Your task to perform on an android device: change the clock style Image 0: 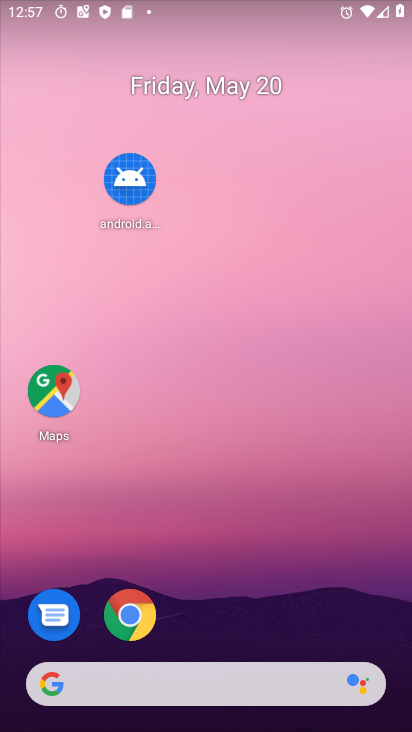
Step 0: drag from (249, 600) to (267, 166)
Your task to perform on an android device: change the clock style Image 1: 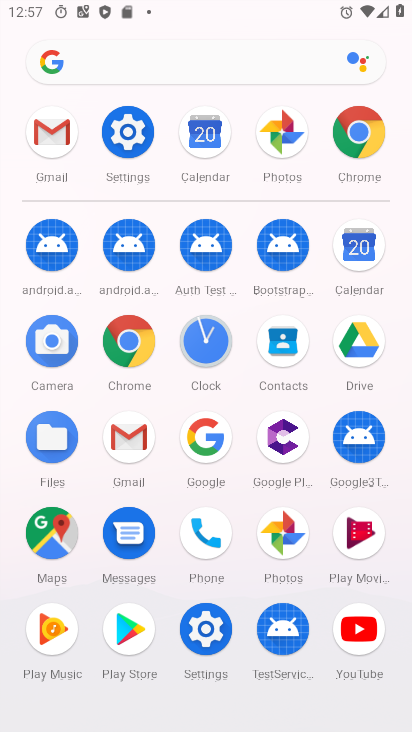
Step 1: click (216, 335)
Your task to perform on an android device: change the clock style Image 2: 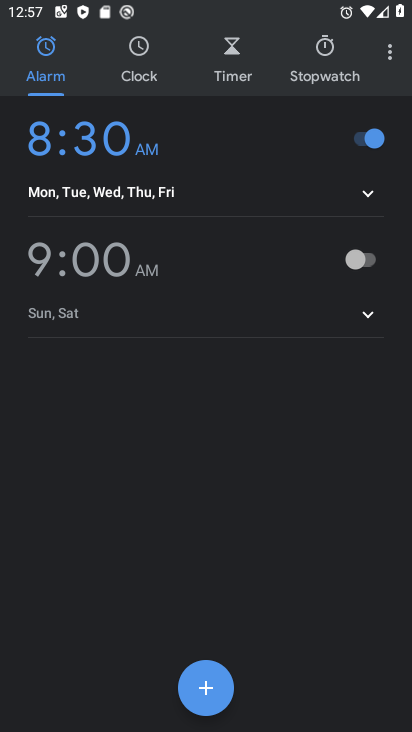
Step 2: click (396, 54)
Your task to perform on an android device: change the clock style Image 3: 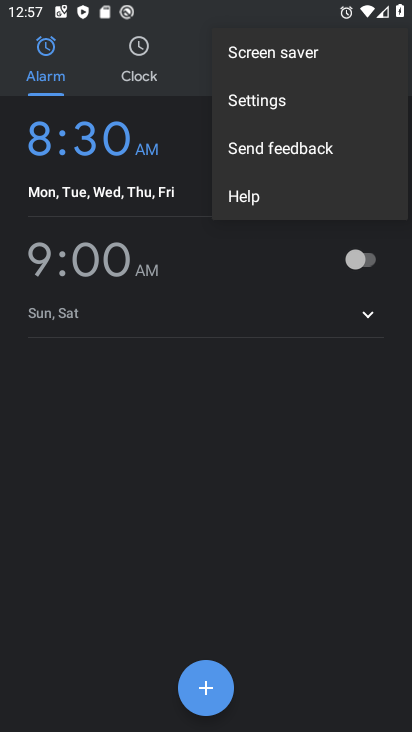
Step 3: click (271, 98)
Your task to perform on an android device: change the clock style Image 4: 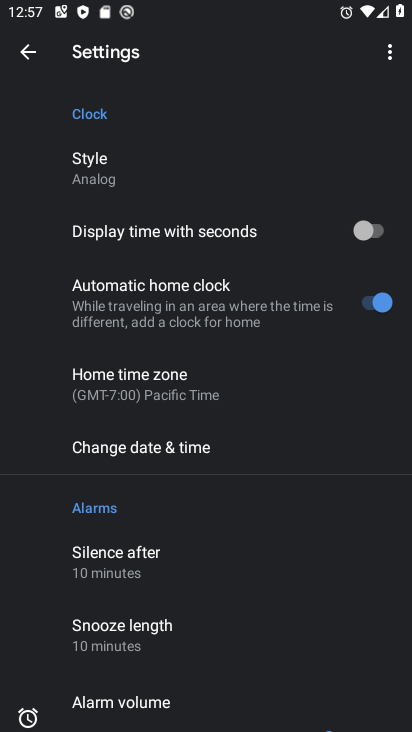
Step 4: click (195, 158)
Your task to perform on an android device: change the clock style Image 5: 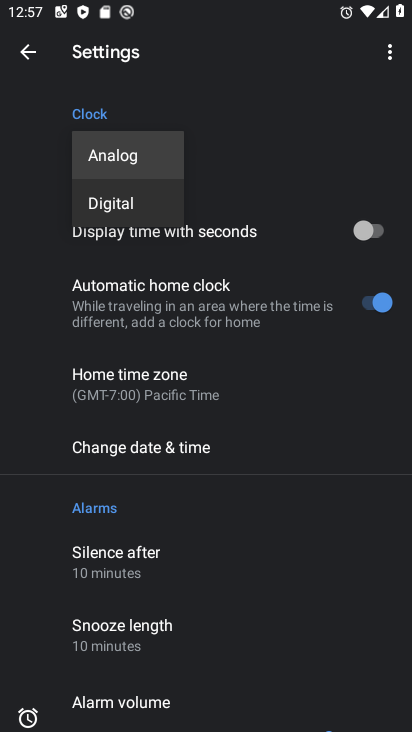
Step 5: click (138, 211)
Your task to perform on an android device: change the clock style Image 6: 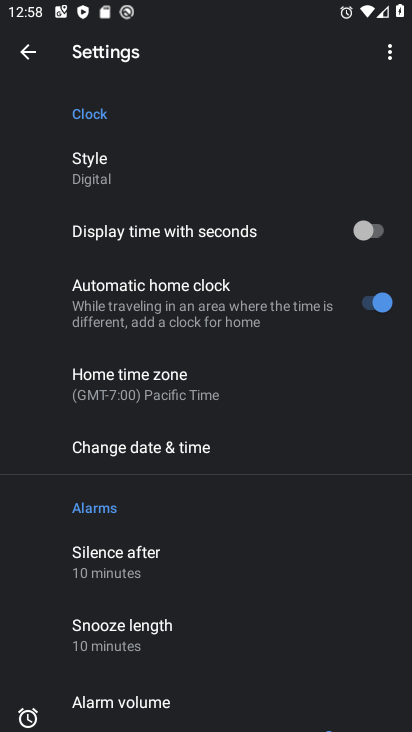
Step 6: task complete